Your task to perform on an android device: Open Chrome and go to settings Image 0: 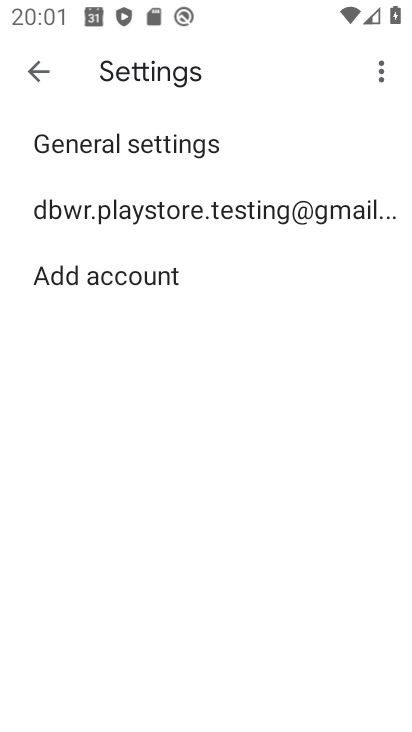
Step 0: press home button
Your task to perform on an android device: Open Chrome and go to settings Image 1: 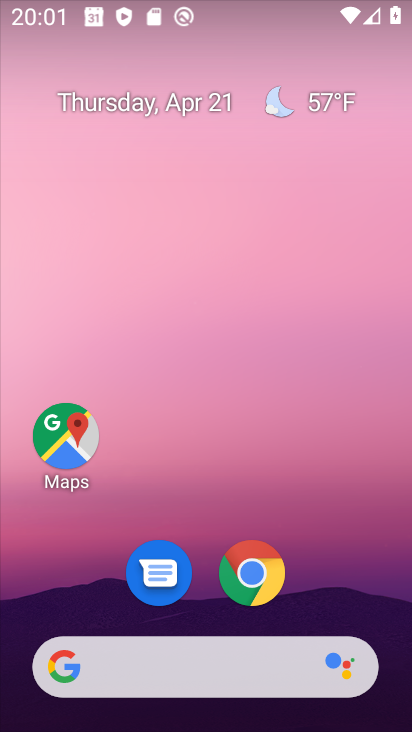
Step 1: click (248, 571)
Your task to perform on an android device: Open Chrome and go to settings Image 2: 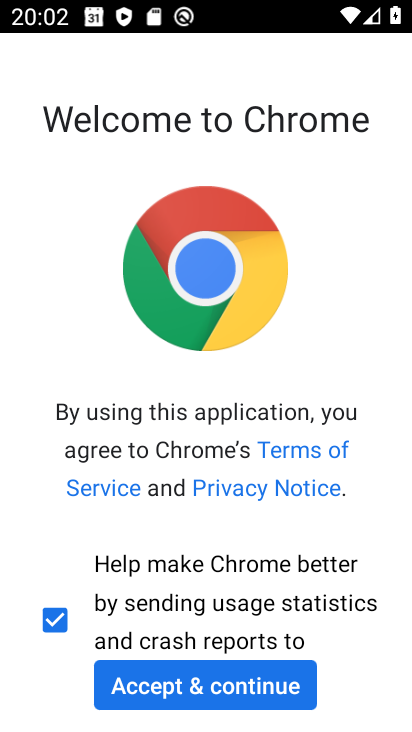
Step 2: click (223, 688)
Your task to perform on an android device: Open Chrome and go to settings Image 3: 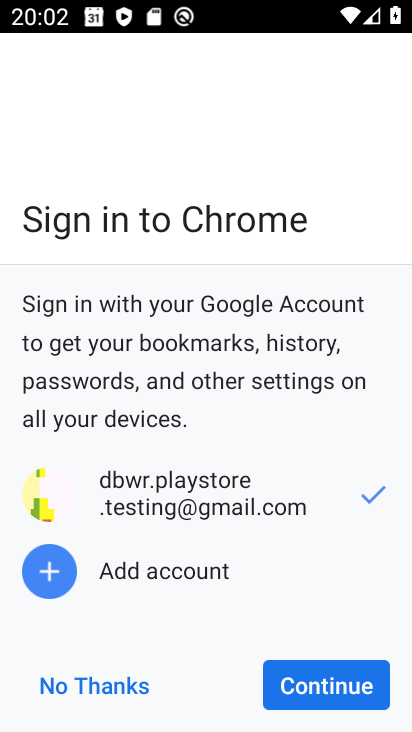
Step 3: click (326, 688)
Your task to perform on an android device: Open Chrome and go to settings Image 4: 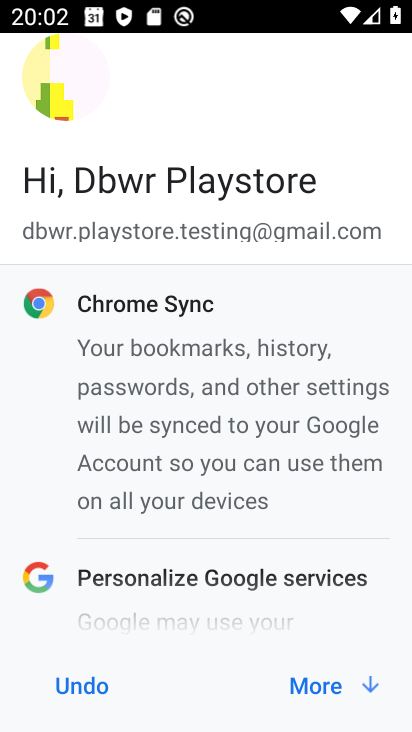
Step 4: click (326, 688)
Your task to perform on an android device: Open Chrome and go to settings Image 5: 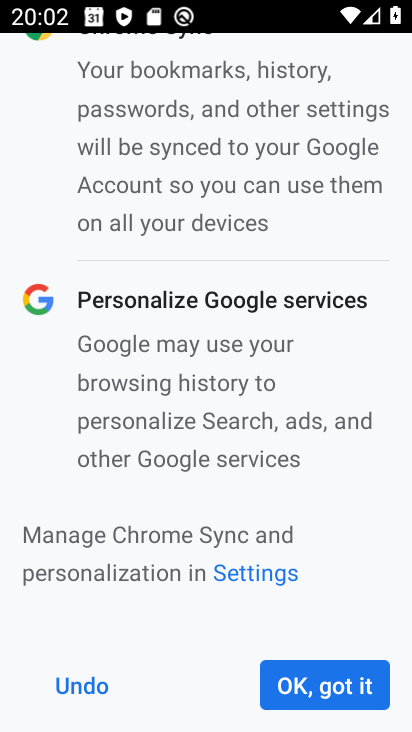
Step 5: click (323, 689)
Your task to perform on an android device: Open Chrome and go to settings Image 6: 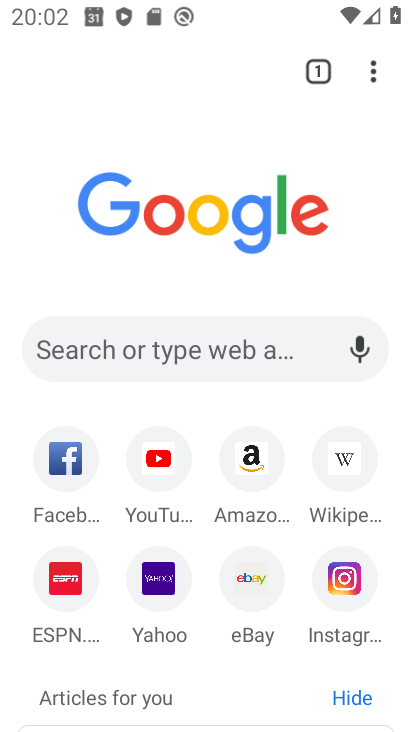
Step 6: task complete